Your task to perform on an android device: turn off javascript in the chrome app Image 0: 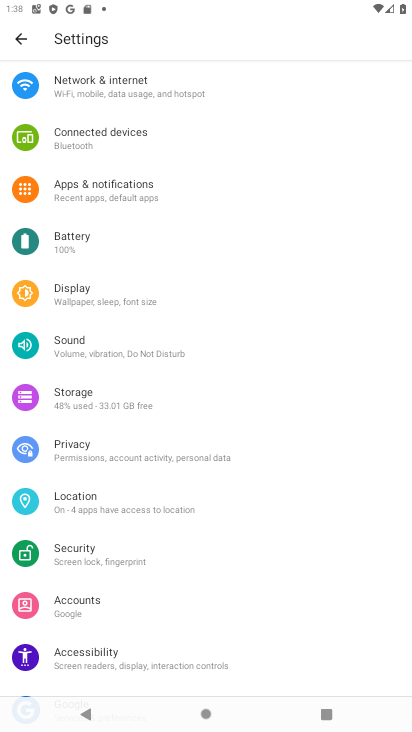
Step 0: press home button
Your task to perform on an android device: turn off javascript in the chrome app Image 1: 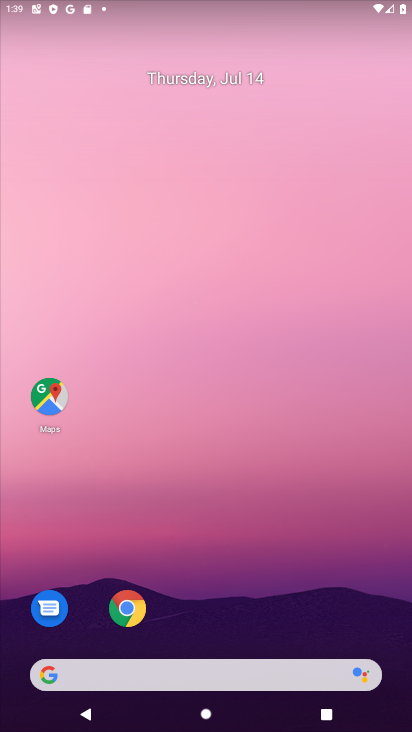
Step 1: drag from (246, 694) to (294, 88)
Your task to perform on an android device: turn off javascript in the chrome app Image 2: 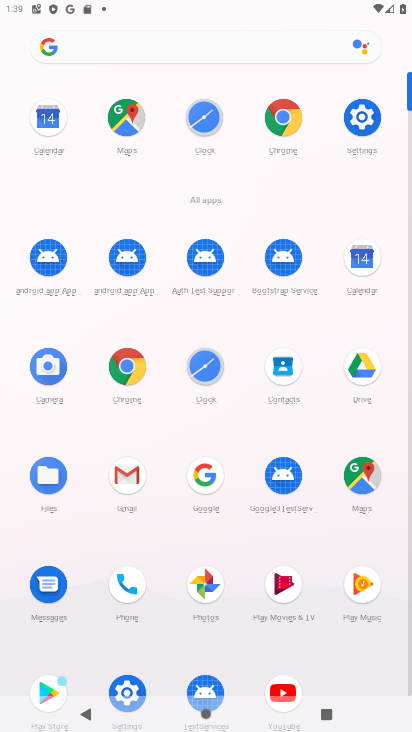
Step 2: click (129, 355)
Your task to perform on an android device: turn off javascript in the chrome app Image 3: 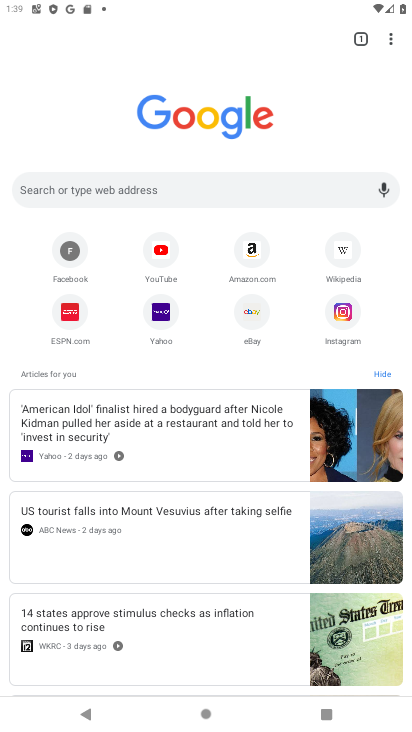
Step 3: click (388, 32)
Your task to perform on an android device: turn off javascript in the chrome app Image 4: 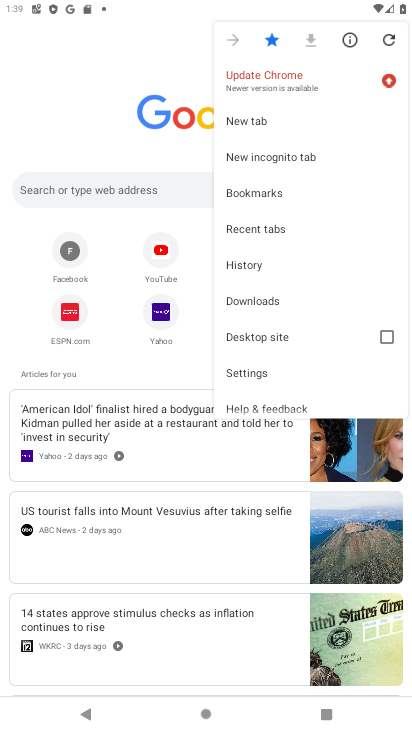
Step 4: click (251, 375)
Your task to perform on an android device: turn off javascript in the chrome app Image 5: 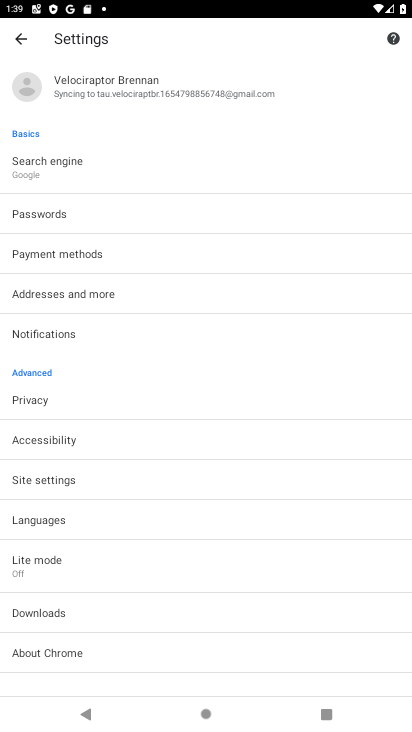
Step 5: click (79, 486)
Your task to perform on an android device: turn off javascript in the chrome app Image 6: 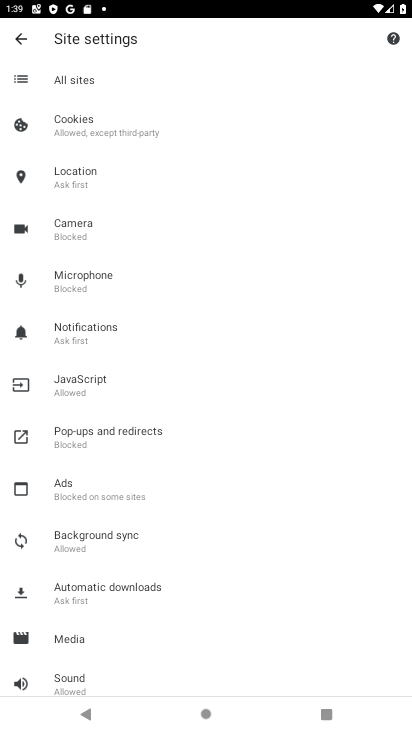
Step 6: click (91, 389)
Your task to perform on an android device: turn off javascript in the chrome app Image 7: 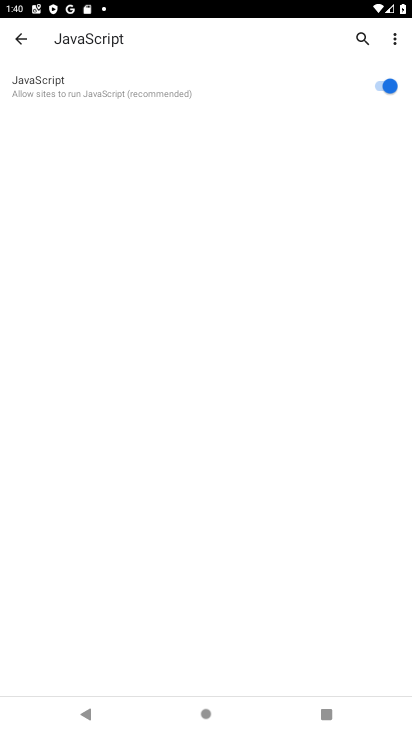
Step 7: task complete